Your task to perform on an android device: What's the weather going to be tomorrow? Image 0: 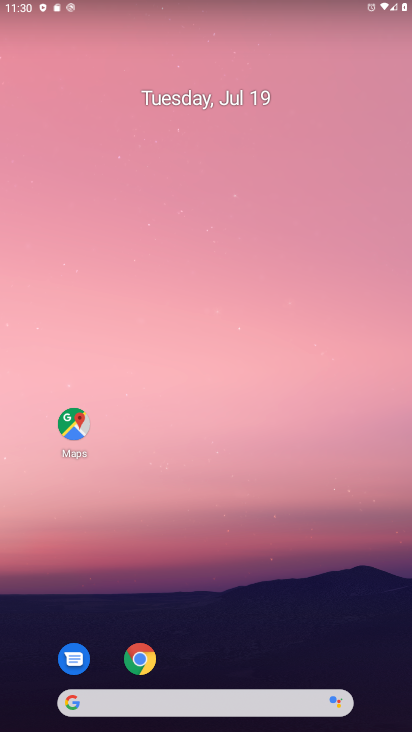
Step 0: press home button
Your task to perform on an android device: What's the weather going to be tomorrow? Image 1: 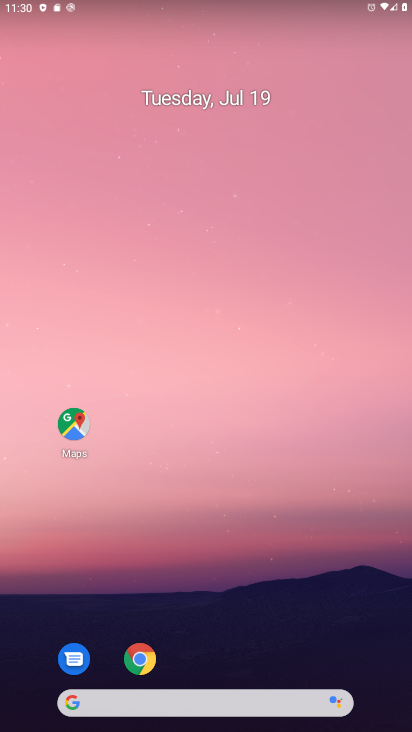
Step 1: drag from (11, 311) to (409, 308)
Your task to perform on an android device: What's the weather going to be tomorrow? Image 2: 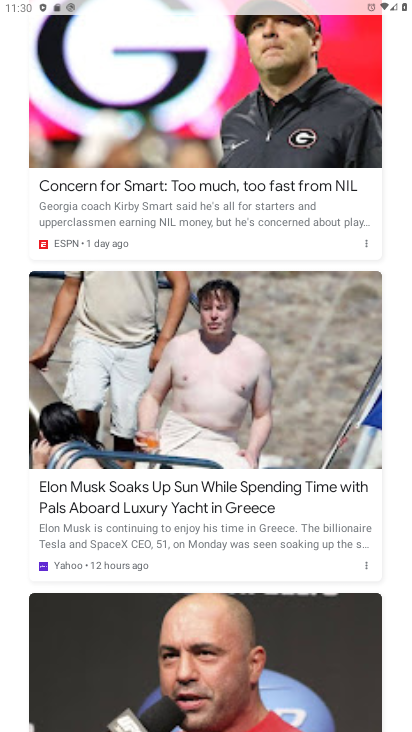
Step 2: drag from (198, 95) to (216, 552)
Your task to perform on an android device: What's the weather going to be tomorrow? Image 3: 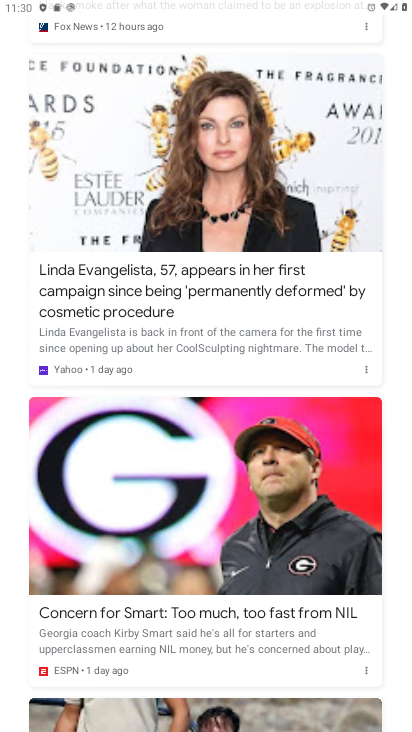
Step 3: drag from (205, 115) to (201, 609)
Your task to perform on an android device: What's the weather going to be tomorrow? Image 4: 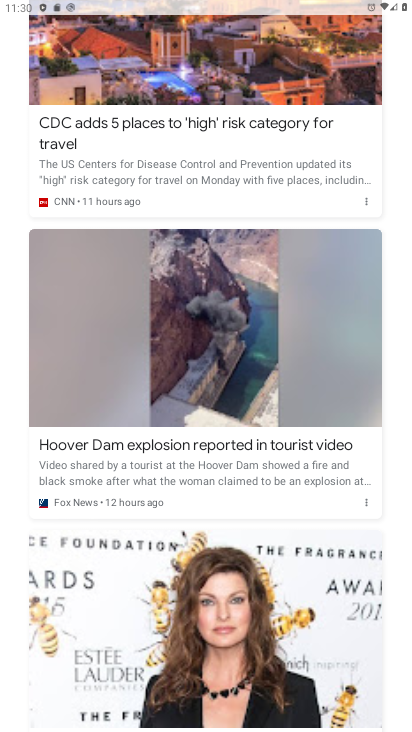
Step 4: drag from (214, 57) to (196, 628)
Your task to perform on an android device: What's the weather going to be tomorrow? Image 5: 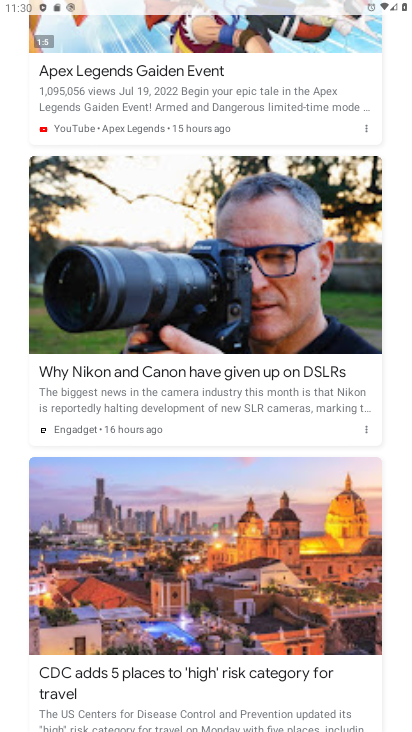
Step 5: drag from (208, 30) to (210, 603)
Your task to perform on an android device: What's the weather going to be tomorrow? Image 6: 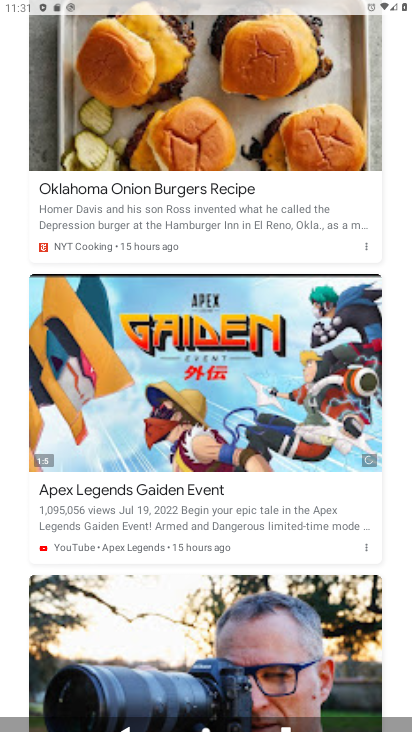
Step 6: drag from (213, 36) to (194, 537)
Your task to perform on an android device: What's the weather going to be tomorrow? Image 7: 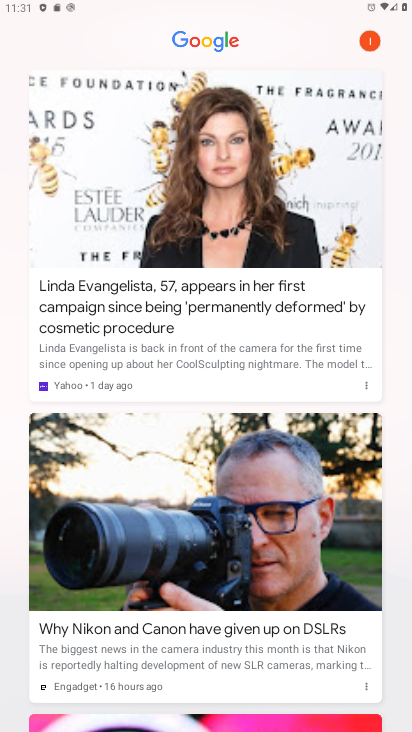
Step 7: press home button
Your task to perform on an android device: What's the weather going to be tomorrow? Image 8: 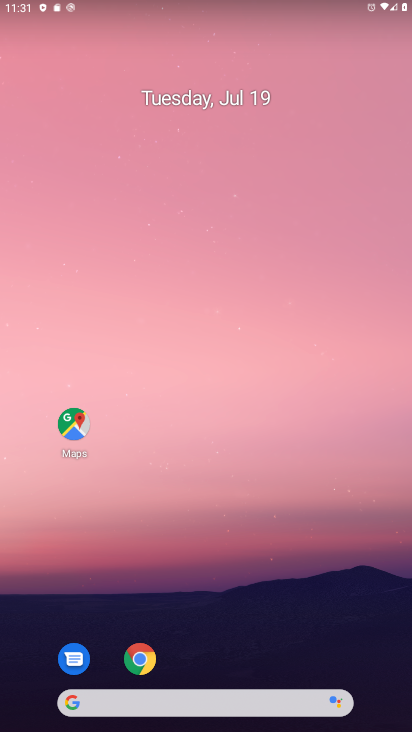
Step 8: click (153, 699)
Your task to perform on an android device: What's the weather going to be tomorrow? Image 9: 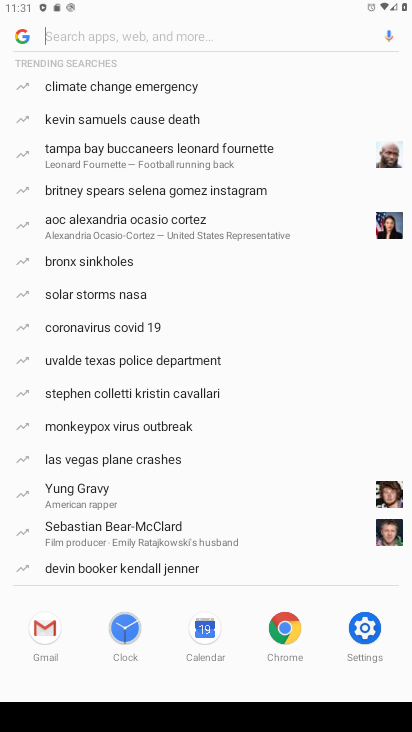
Step 9: type "weather"
Your task to perform on an android device: What's the weather going to be tomorrow? Image 10: 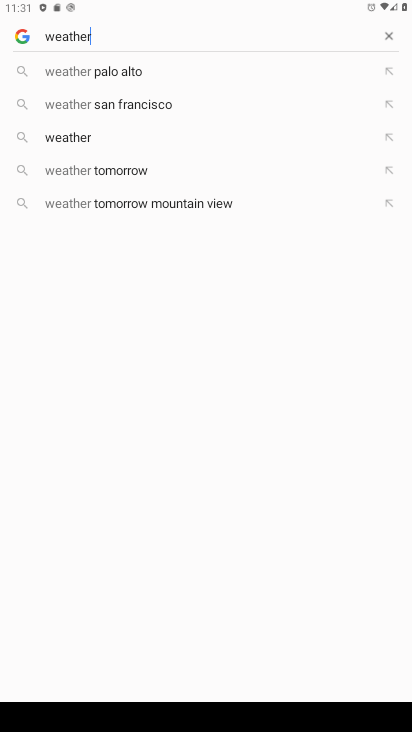
Step 10: click (156, 169)
Your task to perform on an android device: What's the weather going to be tomorrow? Image 11: 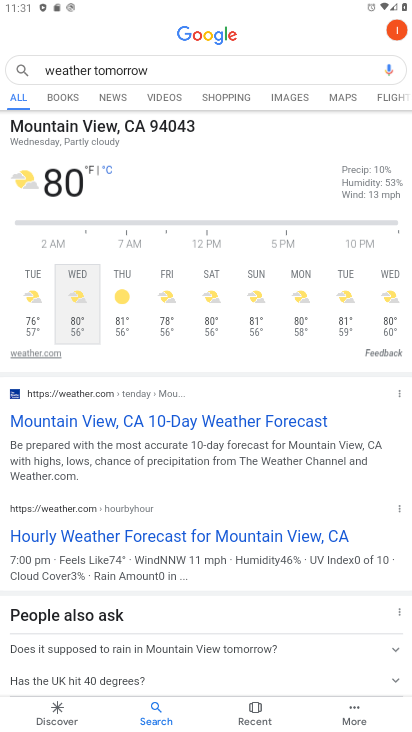
Step 11: task complete